Your task to perform on an android device: When is my next appointment? Image 0: 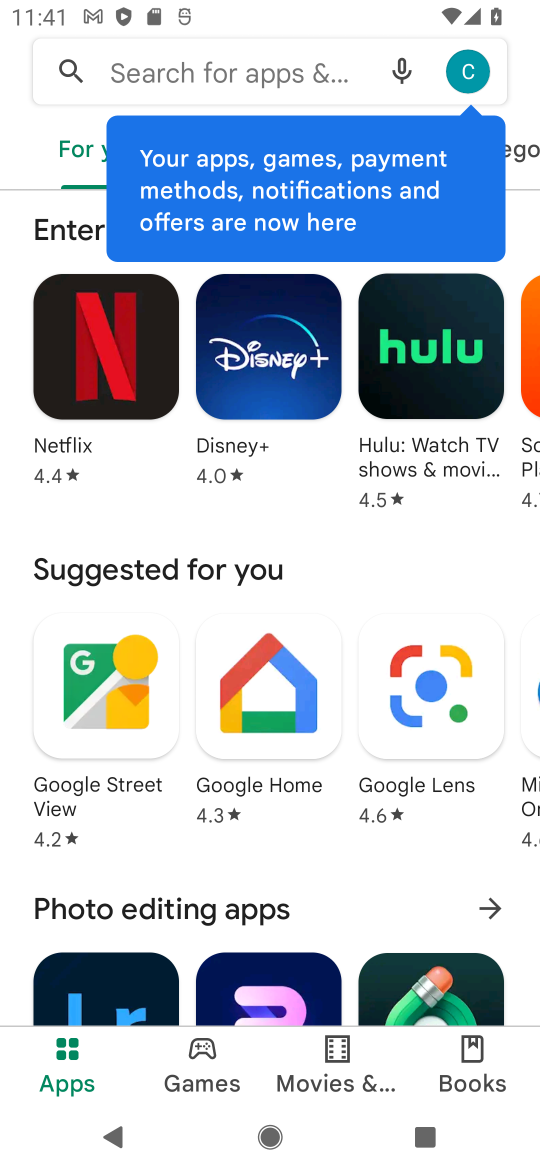
Step 0: press home button
Your task to perform on an android device: When is my next appointment? Image 1: 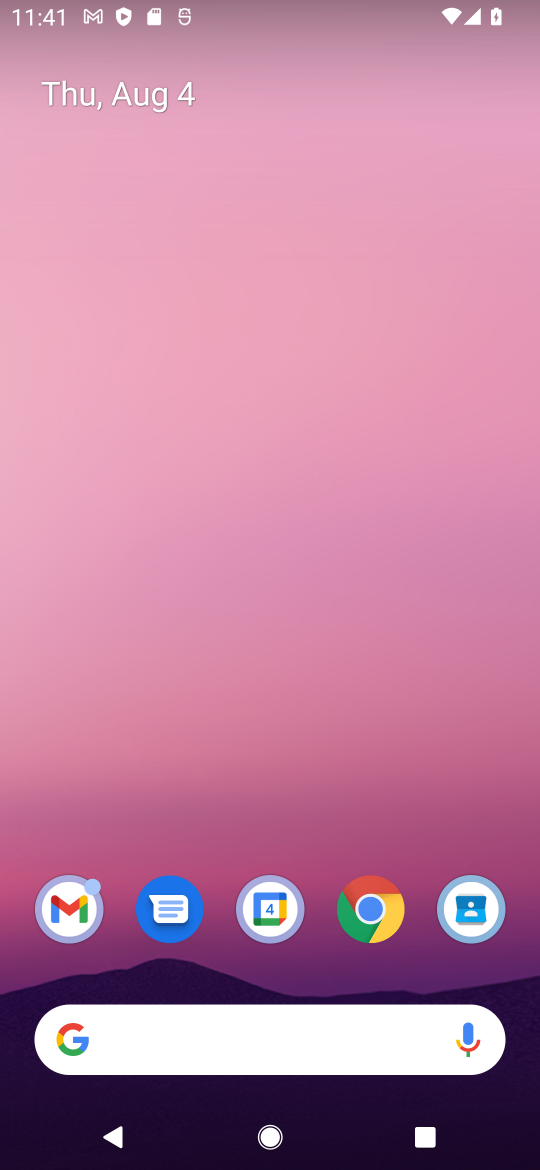
Step 1: drag from (174, 1061) to (193, 68)
Your task to perform on an android device: When is my next appointment? Image 2: 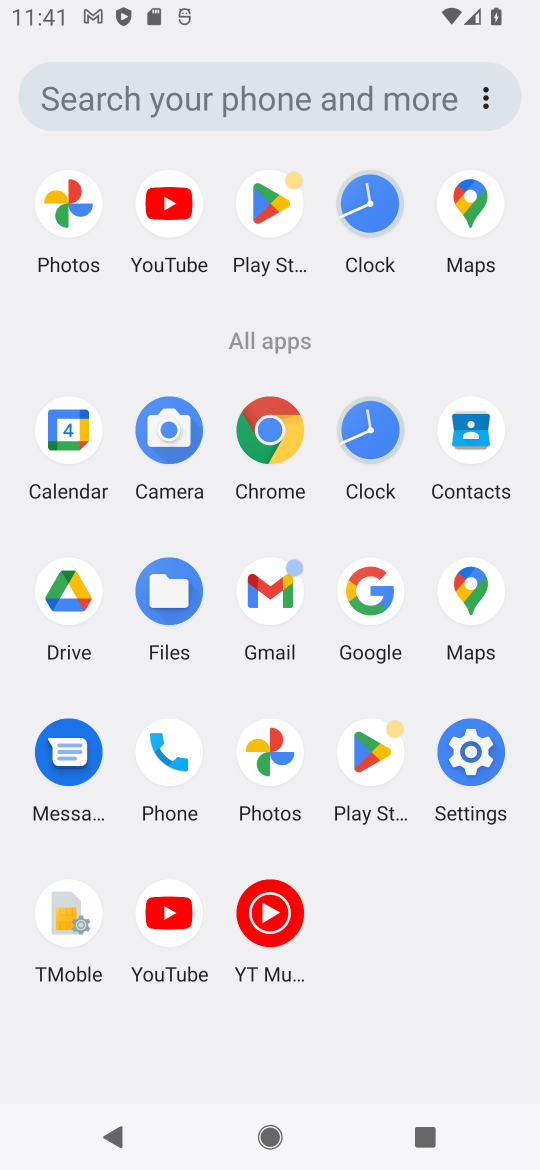
Step 2: click (52, 442)
Your task to perform on an android device: When is my next appointment? Image 3: 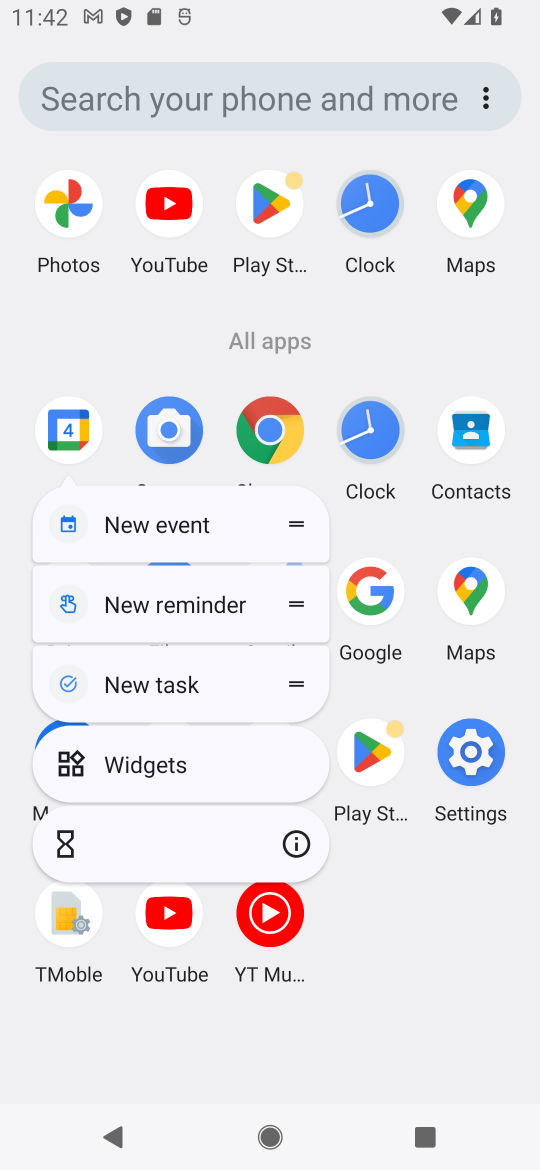
Step 3: click (78, 407)
Your task to perform on an android device: When is my next appointment? Image 4: 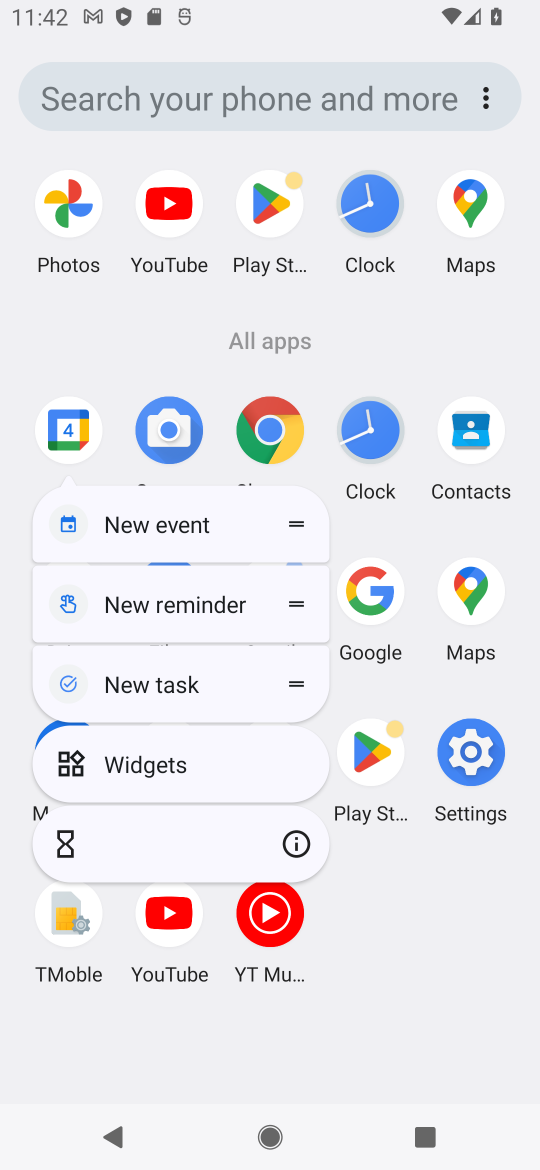
Step 4: click (75, 421)
Your task to perform on an android device: When is my next appointment? Image 5: 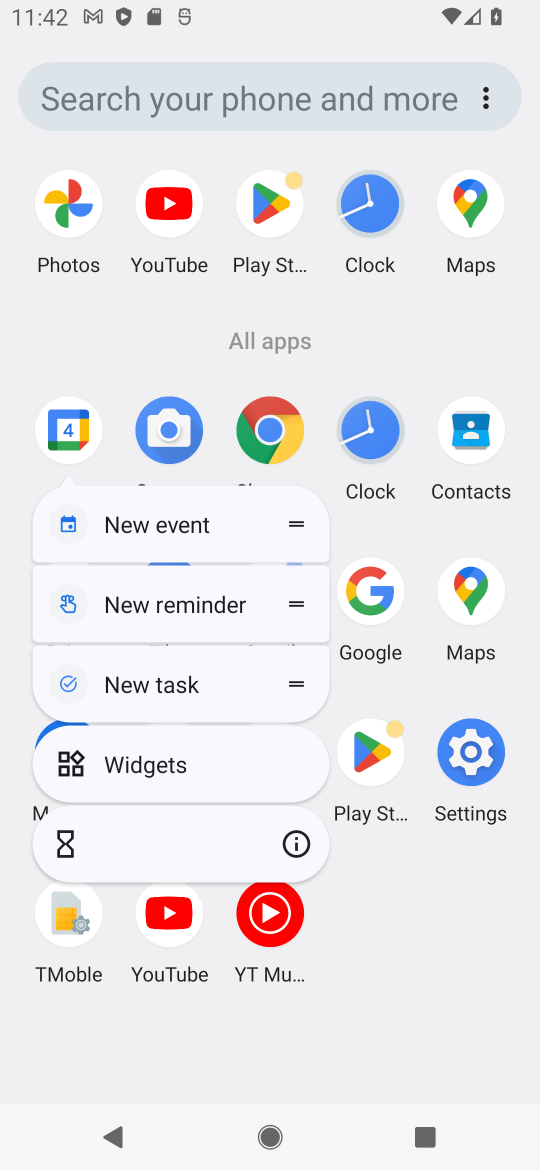
Step 5: click (53, 444)
Your task to perform on an android device: When is my next appointment? Image 6: 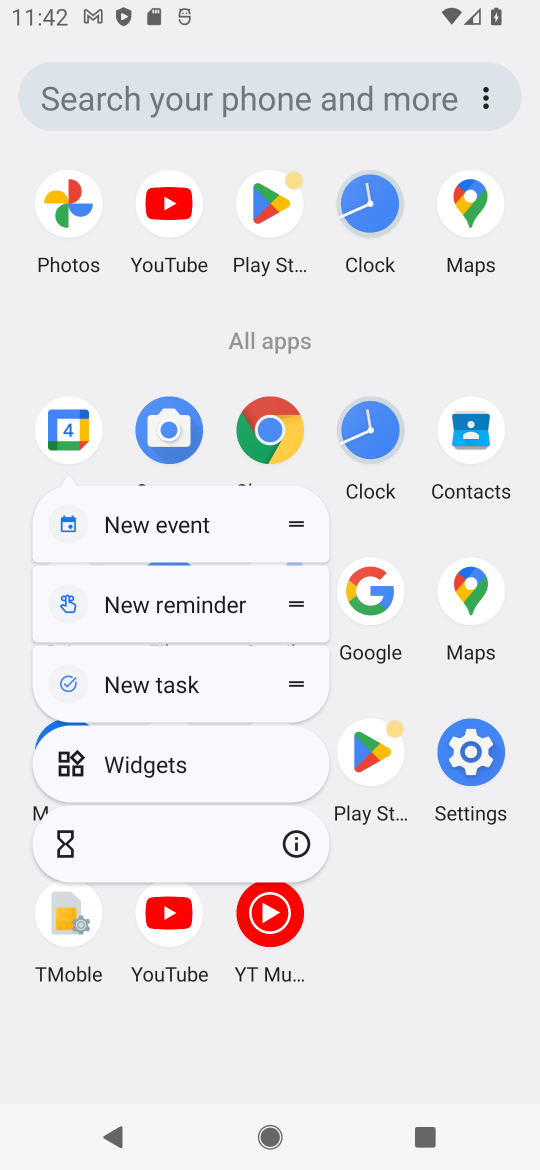
Step 6: click (75, 443)
Your task to perform on an android device: When is my next appointment? Image 7: 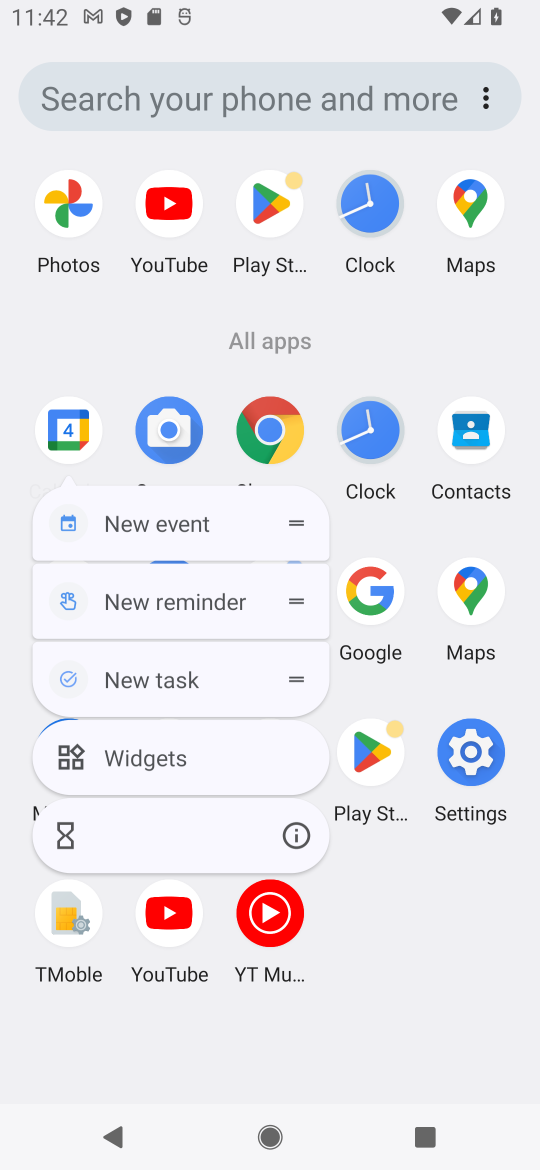
Step 7: click (75, 443)
Your task to perform on an android device: When is my next appointment? Image 8: 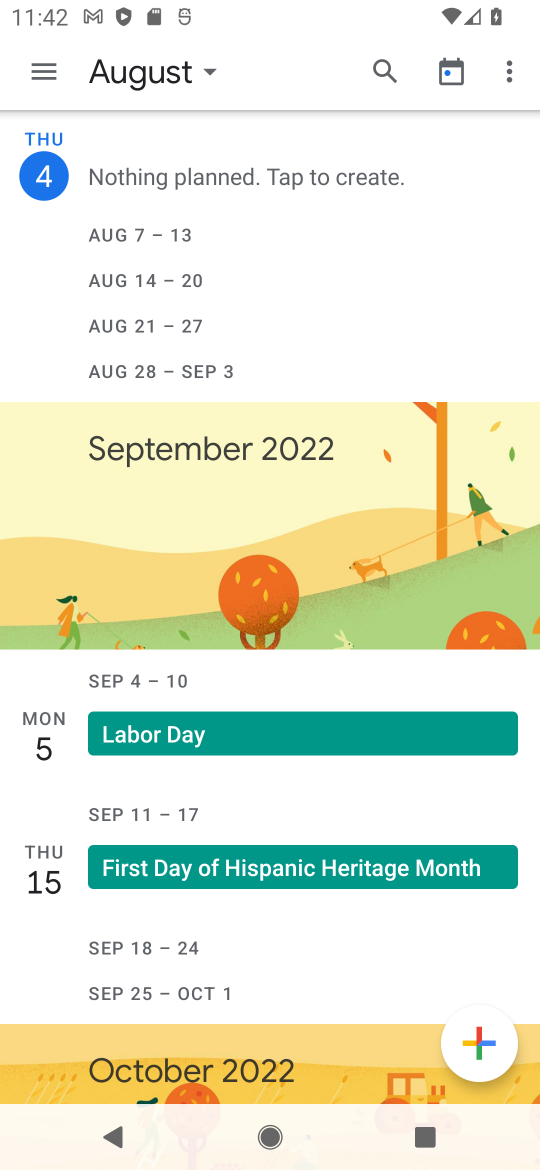
Step 8: click (47, 68)
Your task to perform on an android device: When is my next appointment? Image 9: 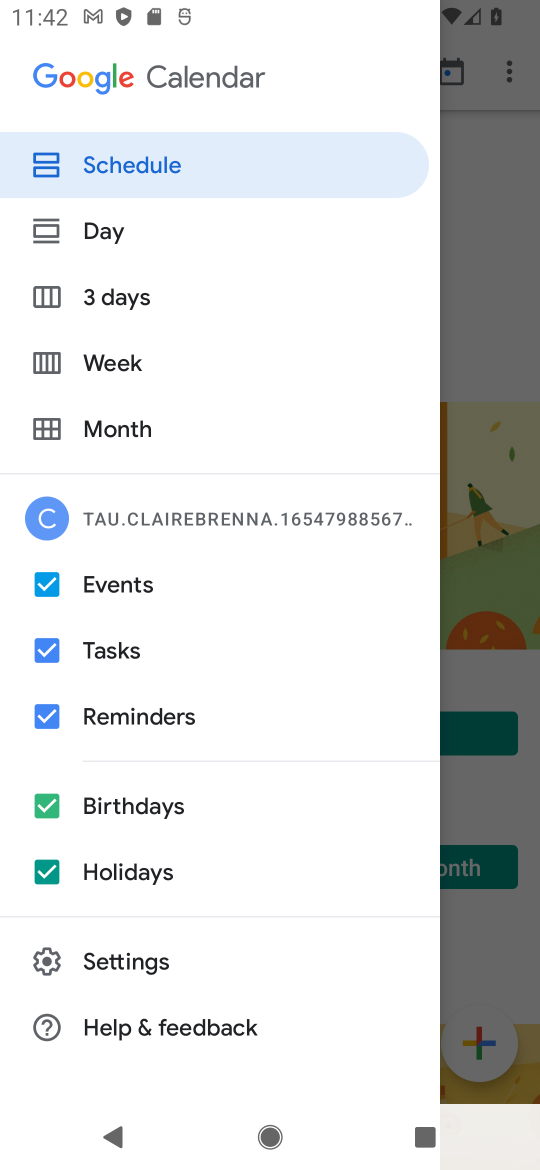
Step 9: click (147, 188)
Your task to perform on an android device: When is my next appointment? Image 10: 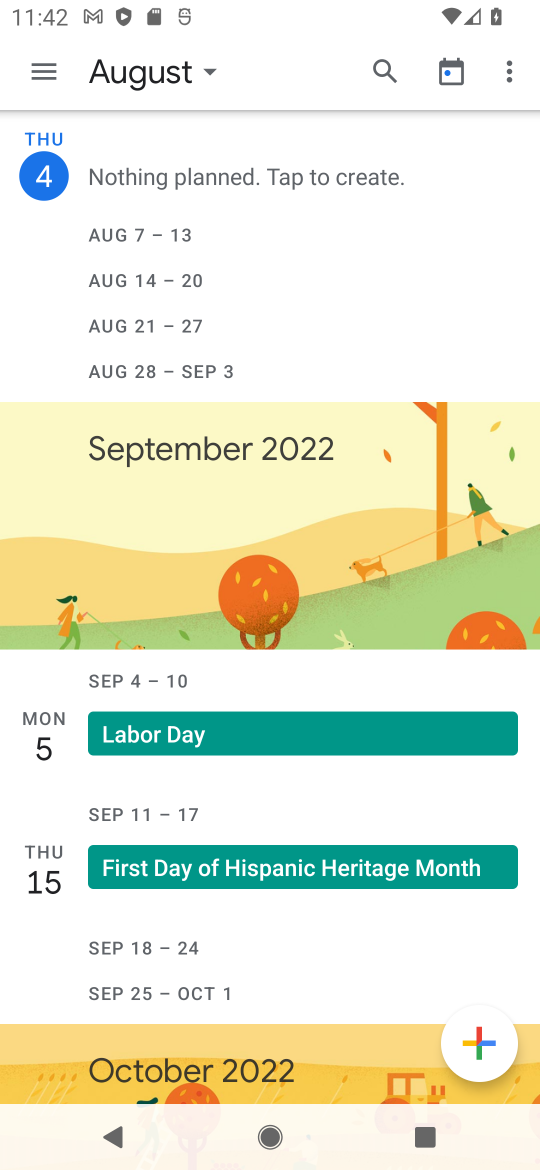
Step 10: task complete